Your task to perform on an android device: Open Google Chrome and open the bookmarks view Image 0: 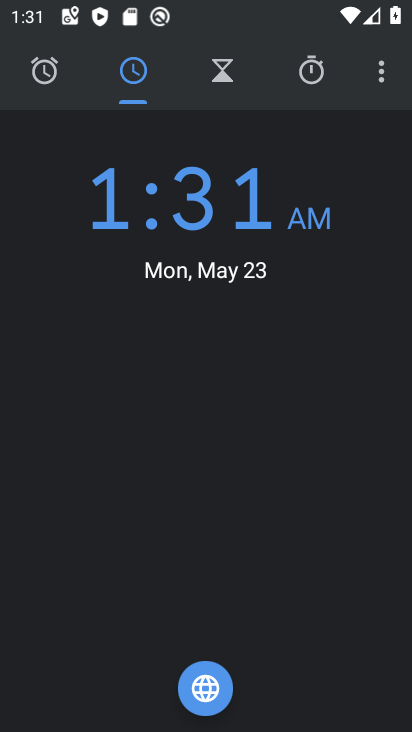
Step 0: press home button
Your task to perform on an android device: Open Google Chrome and open the bookmarks view Image 1: 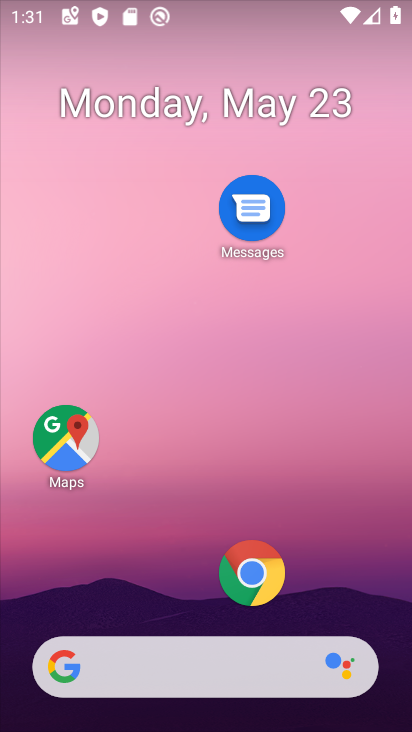
Step 1: drag from (149, 556) to (192, 124)
Your task to perform on an android device: Open Google Chrome and open the bookmarks view Image 2: 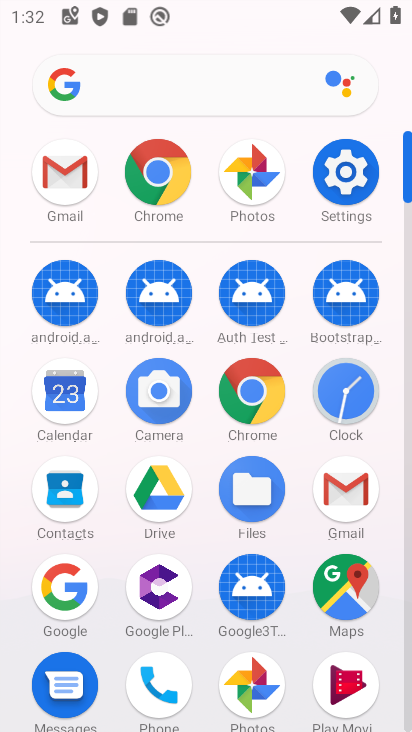
Step 2: click (175, 179)
Your task to perform on an android device: Open Google Chrome and open the bookmarks view Image 3: 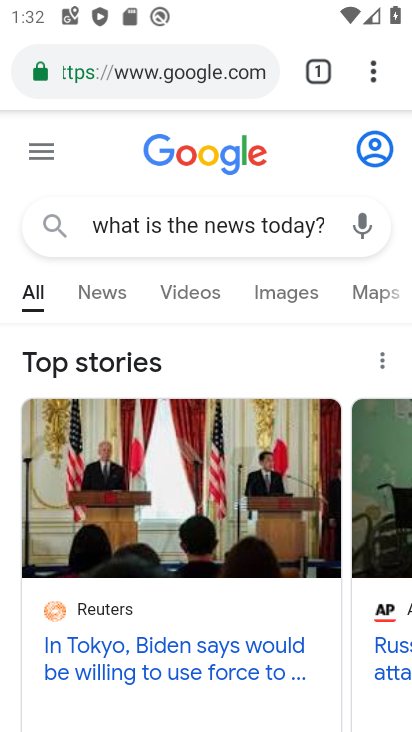
Step 3: click (372, 77)
Your task to perform on an android device: Open Google Chrome and open the bookmarks view Image 4: 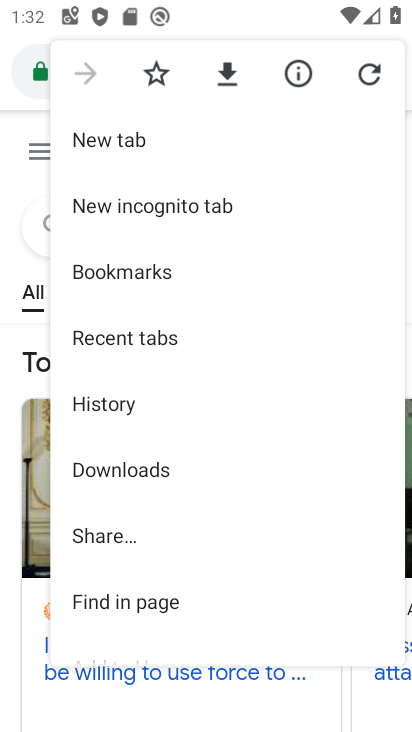
Step 4: click (158, 274)
Your task to perform on an android device: Open Google Chrome and open the bookmarks view Image 5: 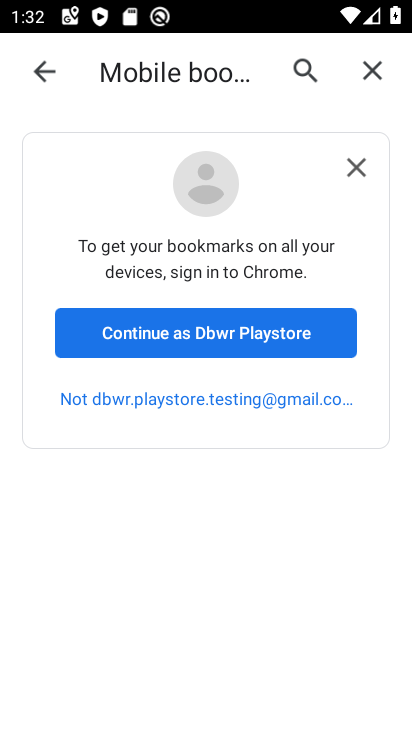
Step 5: task complete